Your task to perform on an android device: Check the news Image 0: 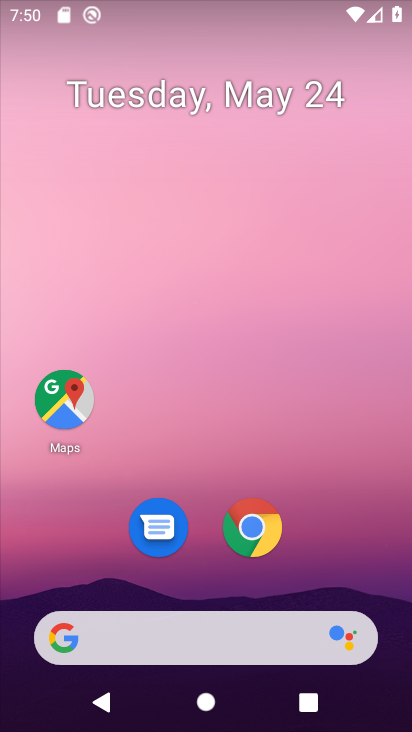
Step 0: click (254, 527)
Your task to perform on an android device: Check the news Image 1: 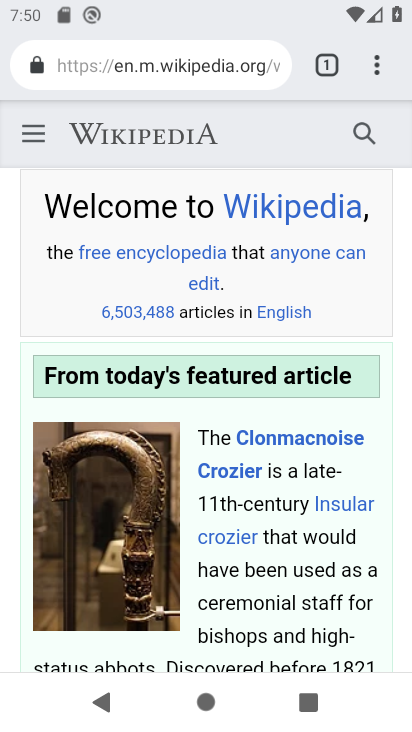
Step 1: click (217, 79)
Your task to perform on an android device: Check the news Image 2: 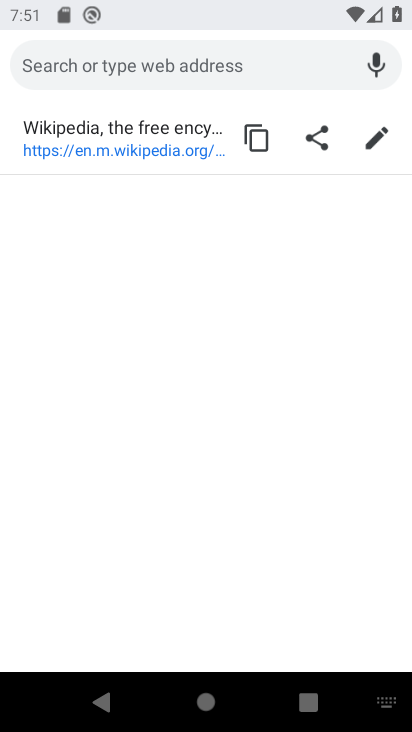
Step 2: type "news"
Your task to perform on an android device: Check the news Image 3: 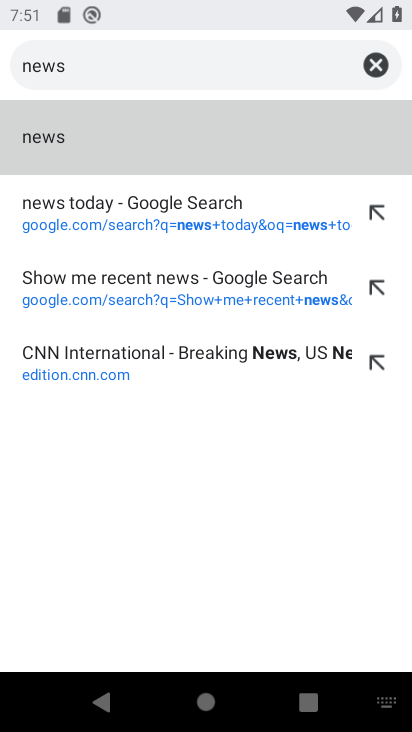
Step 3: click (57, 128)
Your task to perform on an android device: Check the news Image 4: 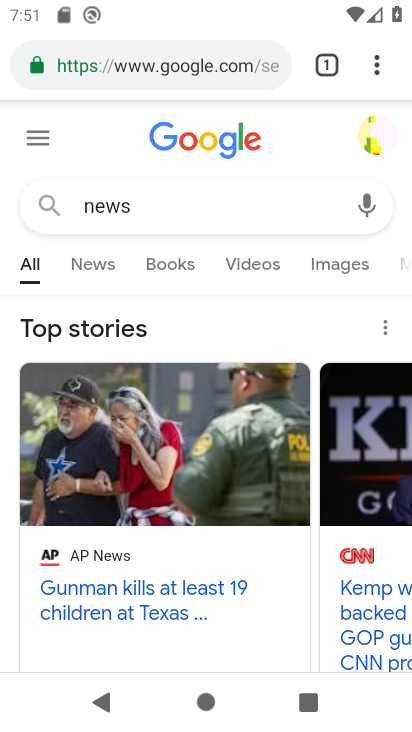
Step 4: click (109, 264)
Your task to perform on an android device: Check the news Image 5: 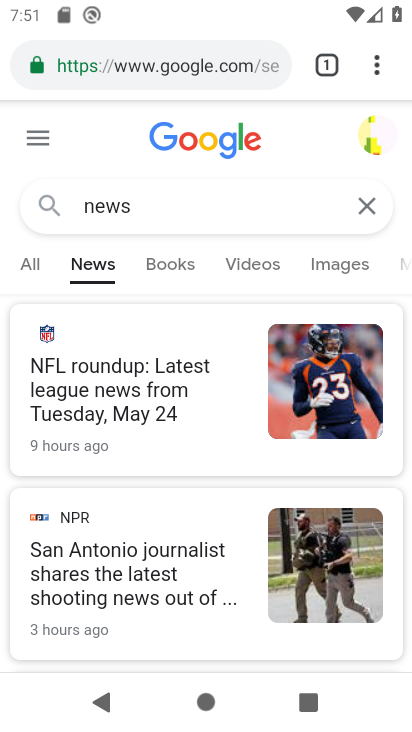
Step 5: task complete